Your task to perform on an android device: manage bookmarks in the chrome app Image 0: 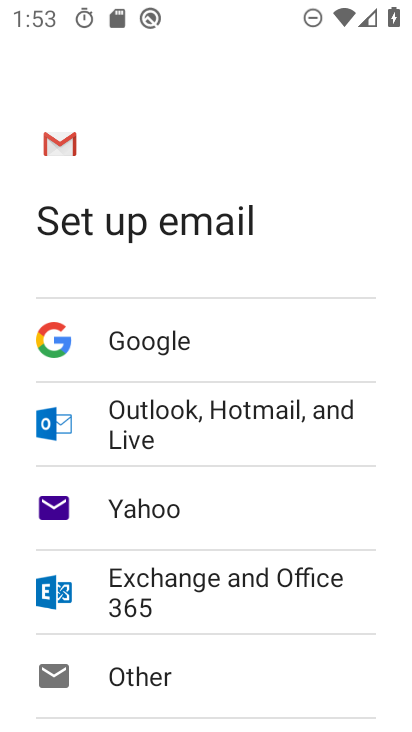
Step 0: drag from (229, 666) to (304, 174)
Your task to perform on an android device: manage bookmarks in the chrome app Image 1: 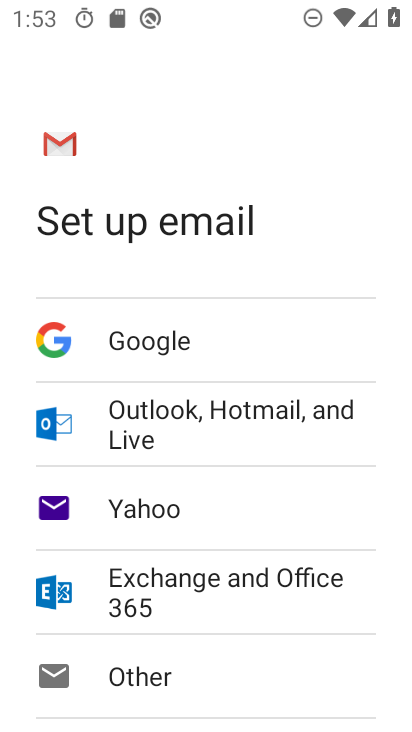
Step 1: drag from (220, 630) to (289, 219)
Your task to perform on an android device: manage bookmarks in the chrome app Image 2: 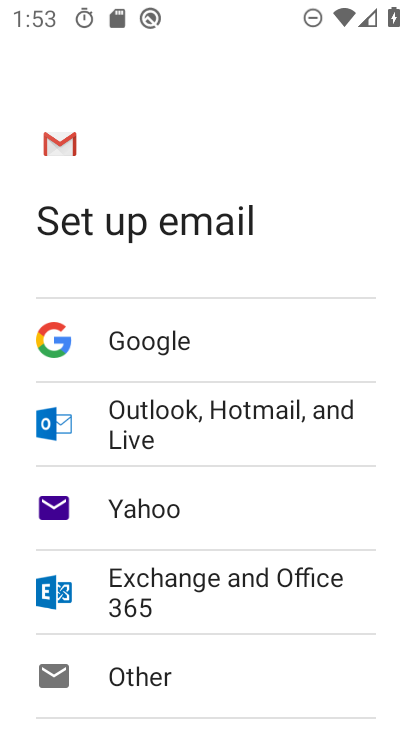
Step 2: press home button
Your task to perform on an android device: manage bookmarks in the chrome app Image 3: 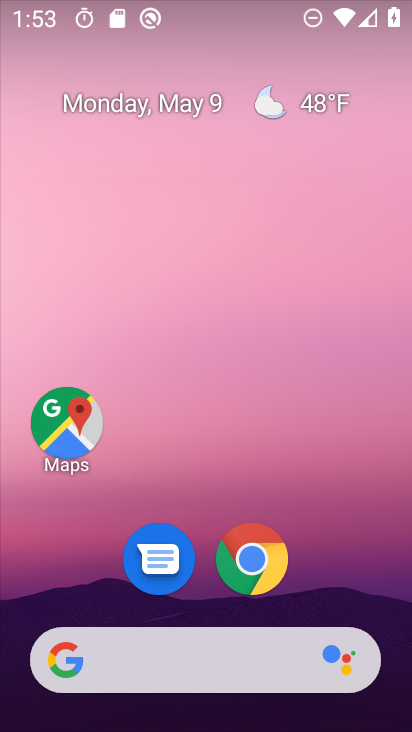
Step 3: drag from (194, 607) to (178, 271)
Your task to perform on an android device: manage bookmarks in the chrome app Image 4: 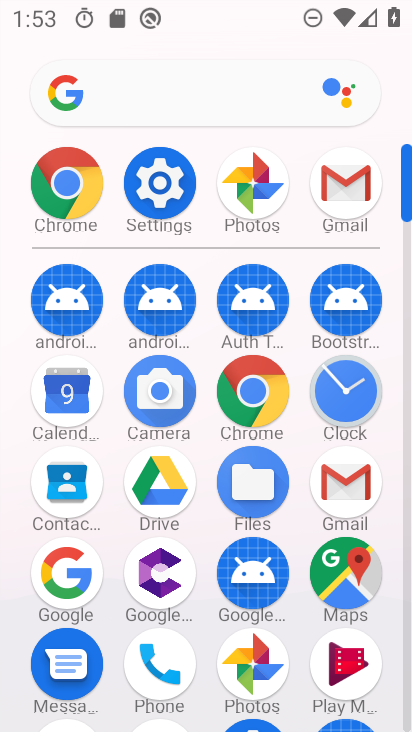
Step 4: click (251, 383)
Your task to perform on an android device: manage bookmarks in the chrome app Image 5: 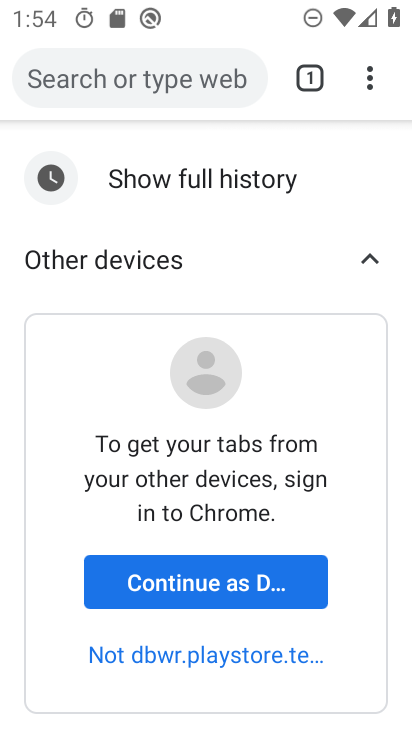
Step 5: task complete